Your task to perform on an android device: Show me popular videos on Youtube Image 0: 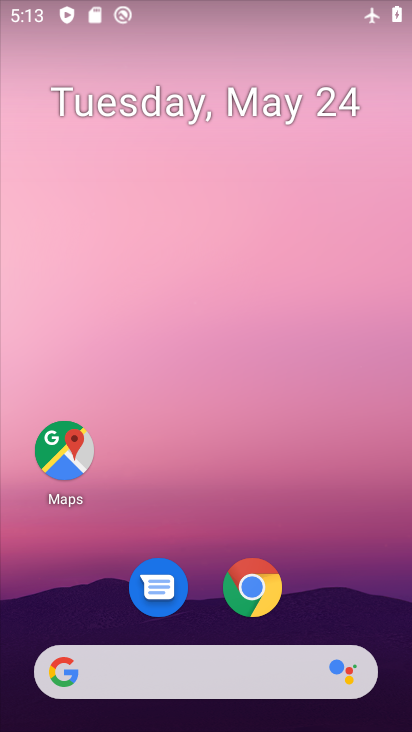
Step 0: drag from (364, 552) to (235, 12)
Your task to perform on an android device: Show me popular videos on Youtube Image 1: 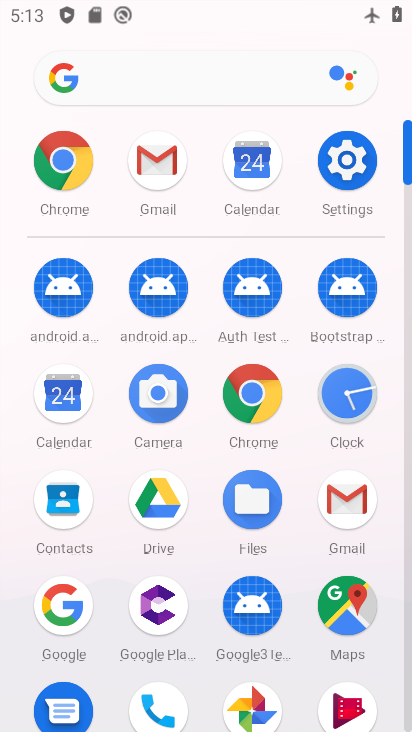
Step 1: drag from (306, 654) to (242, 73)
Your task to perform on an android device: Show me popular videos on Youtube Image 2: 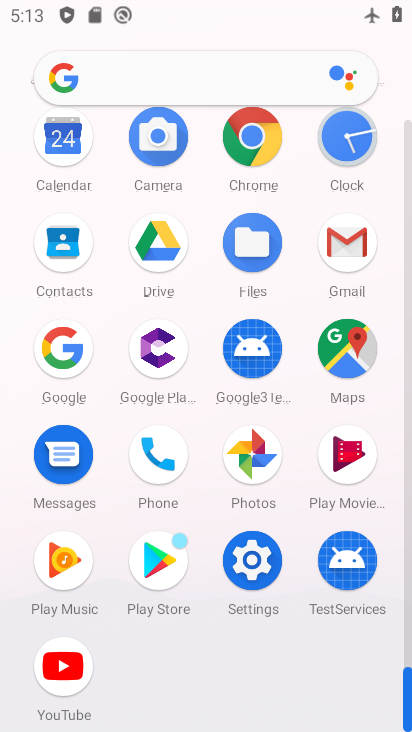
Step 2: click (57, 664)
Your task to perform on an android device: Show me popular videos on Youtube Image 3: 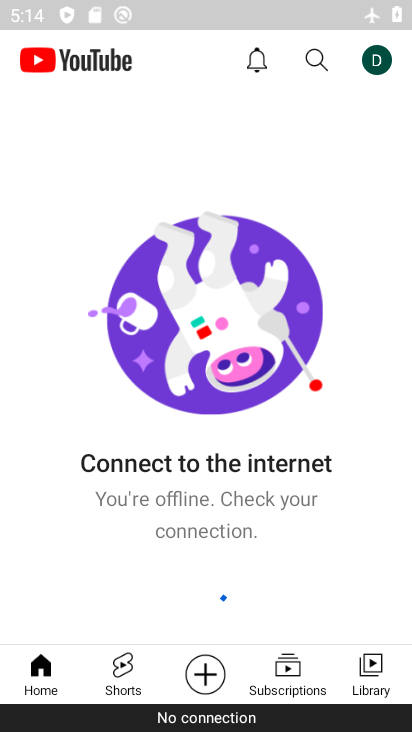
Step 3: task complete